Your task to perform on an android device: check battery use Image 0: 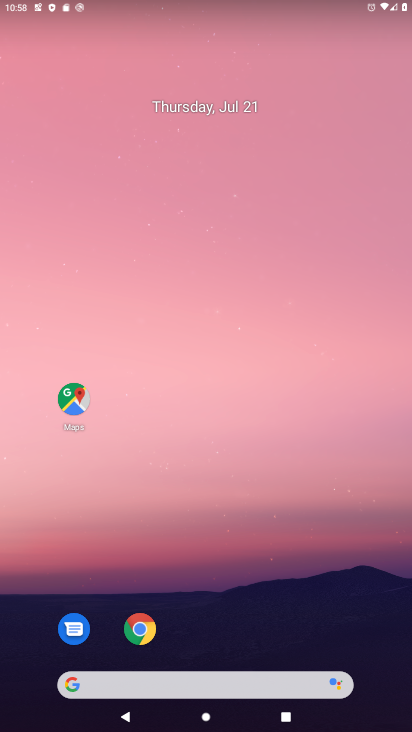
Step 0: drag from (256, 3) to (115, 474)
Your task to perform on an android device: check battery use Image 1: 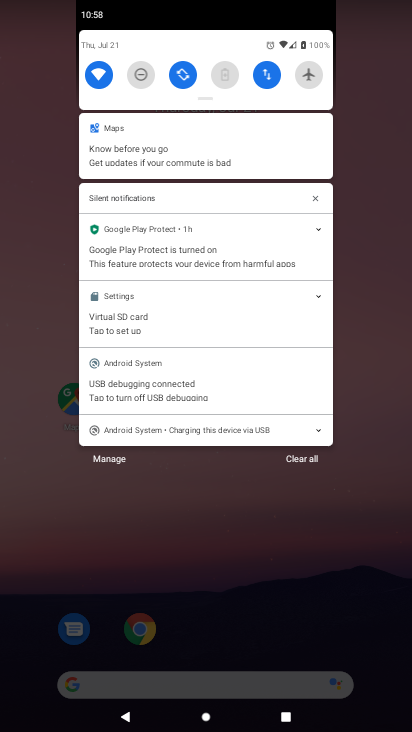
Step 1: click (232, 83)
Your task to perform on an android device: check battery use Image 2: 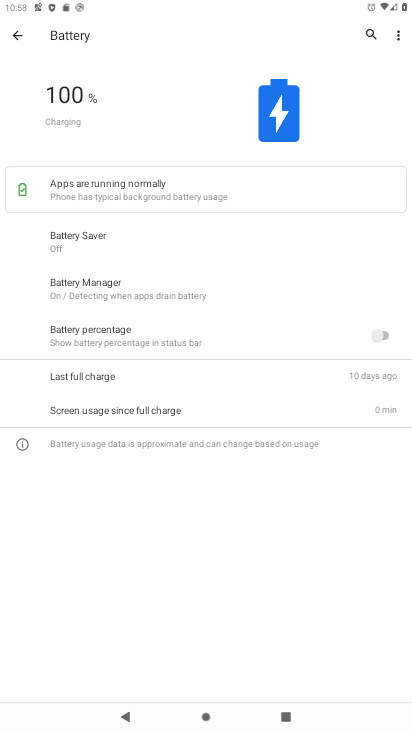
Step 2: click (398, 43)
Your task to perform on an android device: check battery use Image 3: 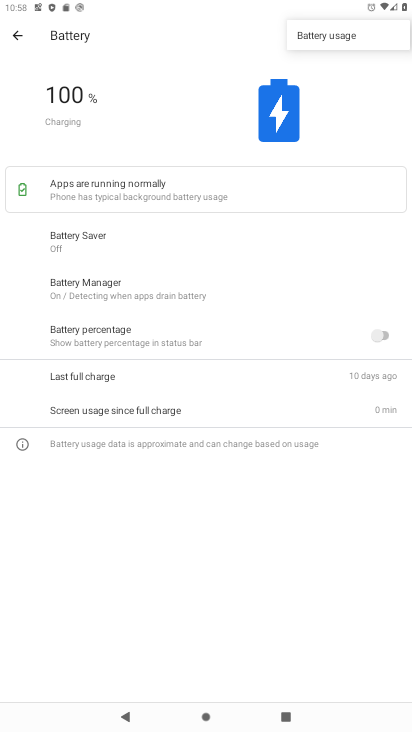
Step 3: click (379, 38)
Your task to perform on an android device: check battery use Image 4: 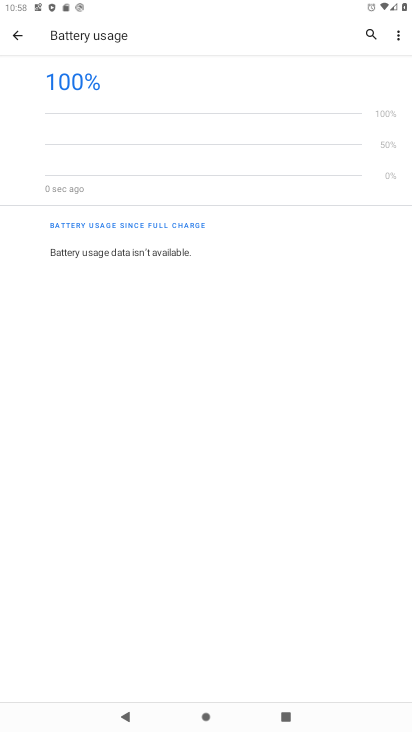
Step 4: task complete